Your task to perform on an android device: Go to Android settings Image 0: 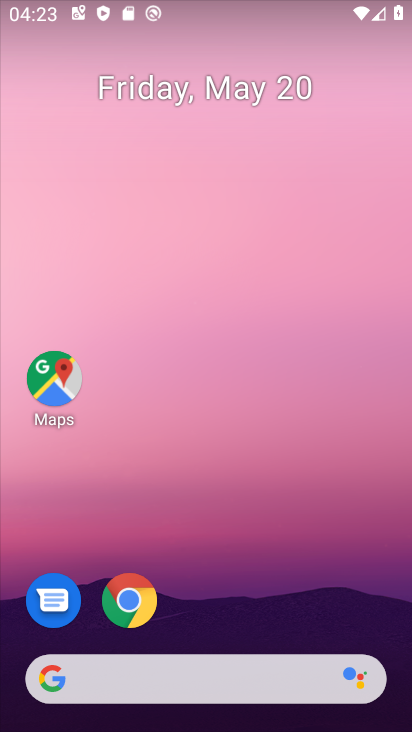
Step 0: drag from (291, 564) to (273, 38)
Your task to perform on an android device: Go to Android settings Image 1: 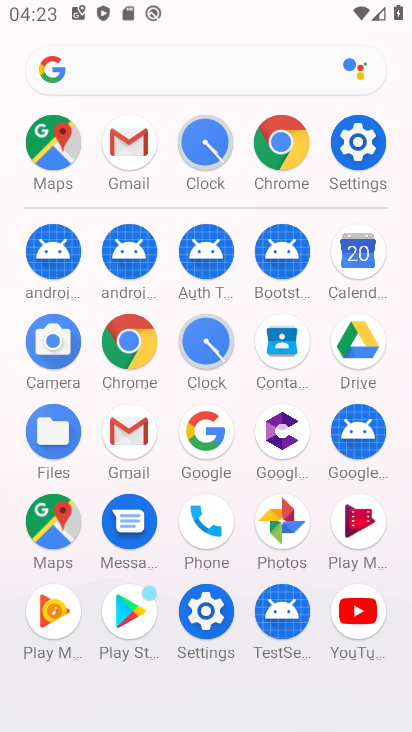
Step 1: drag from (16, 566) to (20, 225)
Your task to perform on an android device: Go to Android settings Image 2: 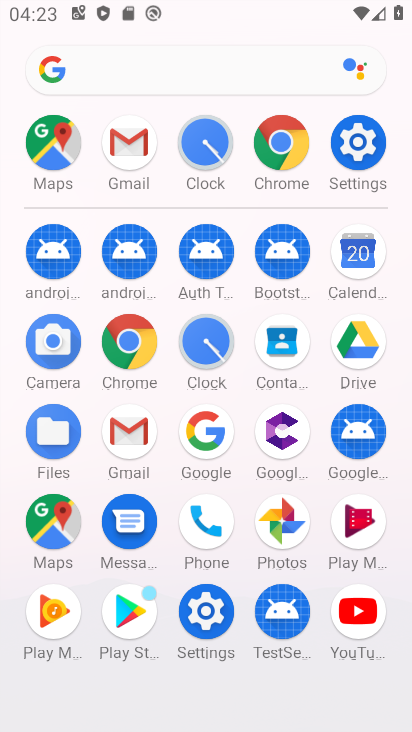
Step 2: click (206, 614)
Your task to perform on an android device: Go to Android settings Image 3: 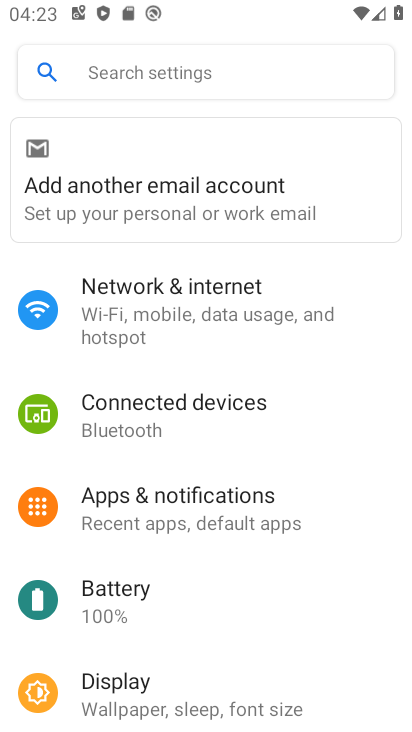
Step 3: task complete